Your task to perform on an android device: empty trash in google photos Image 0: 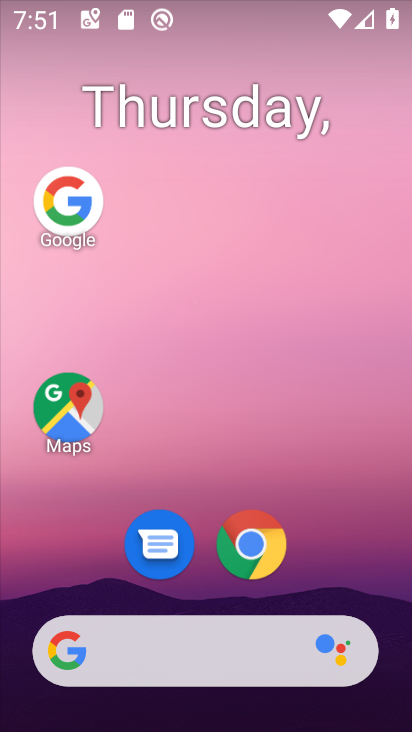
Step 0: drag from (271, 694) to (240, 244)
Your task to perform on an android device: empty trash in google photos Image 1: 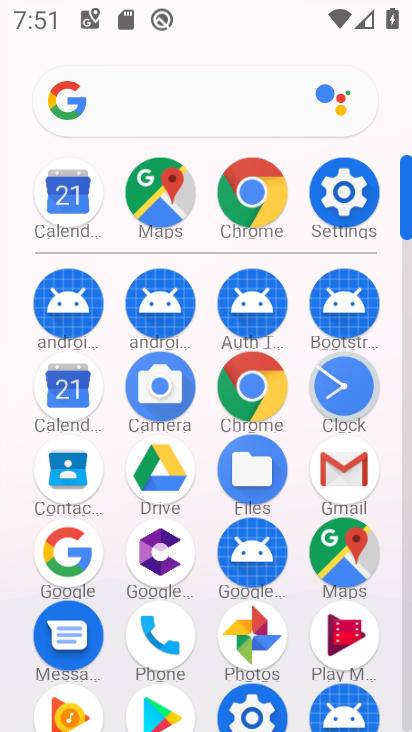
Step 1: click (258, 623)
Your task to perform on an android device: empty trash in google photos Image 2: 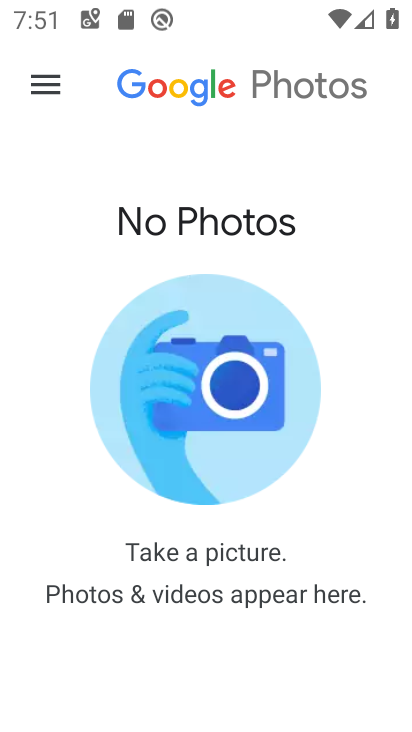
Step 2: click (52, 89)
Your task to perform on an android device: empty trash in google photos Image 3: 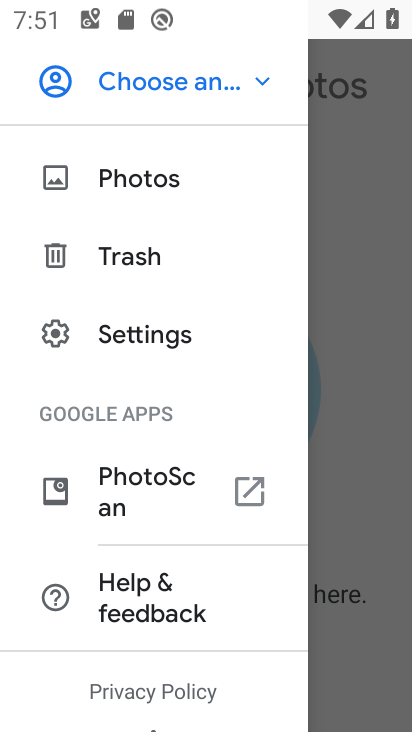
Step 3: click (137, 268)
Your task to perform on an android device: empty trash in google photos Image 4: 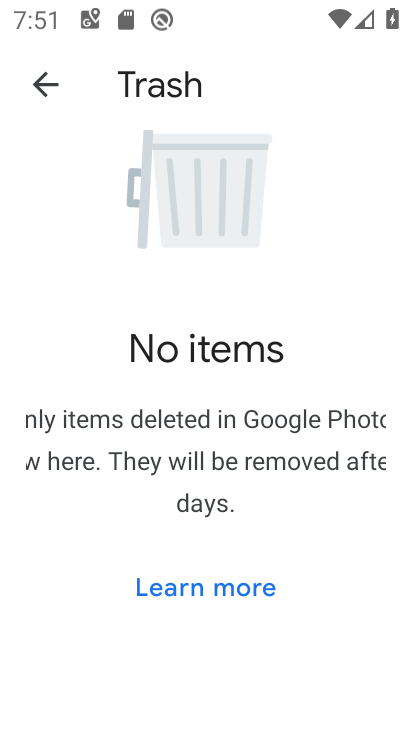
Step 4: task complete